Your task to perform on an android device: Show me recent news Image 0: 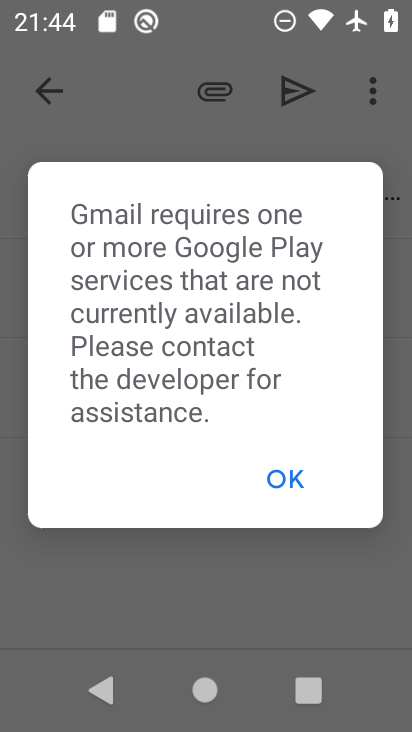
Step 0: press home button
Your task to perform on an android device: Show me recent news Image 1: 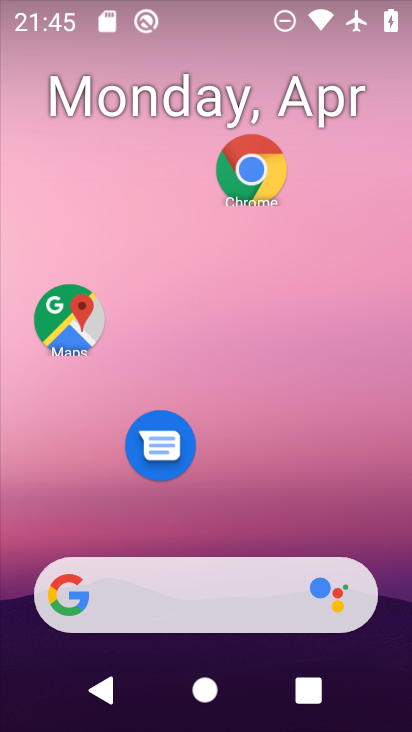
Step 1: drag from (203, 538) to (222, 154)
Your task to perform on an android device: Show me recent news Image 2: 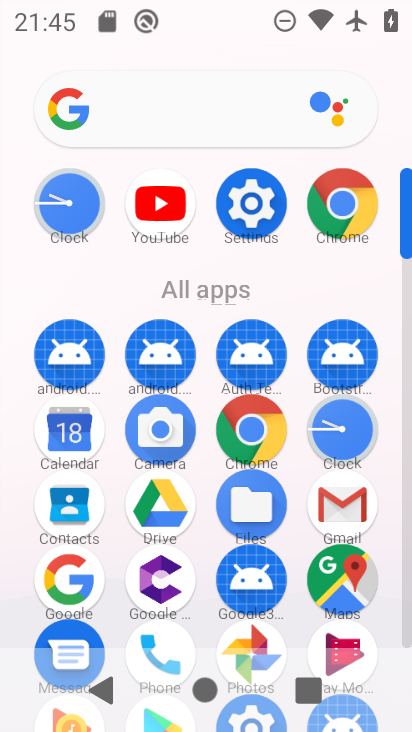
Step 2: click (70, 566)
Your task to perform on an android device: Show me recent news Image 3: 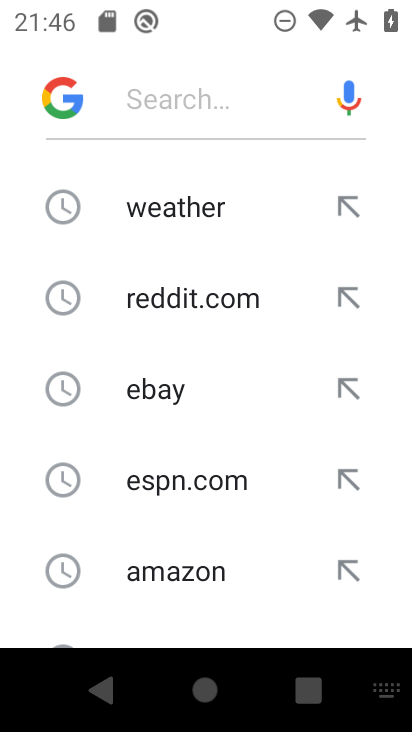
Step 3: click (69, 110)
Your task to perform on an android device: Show me recent news Image 4: 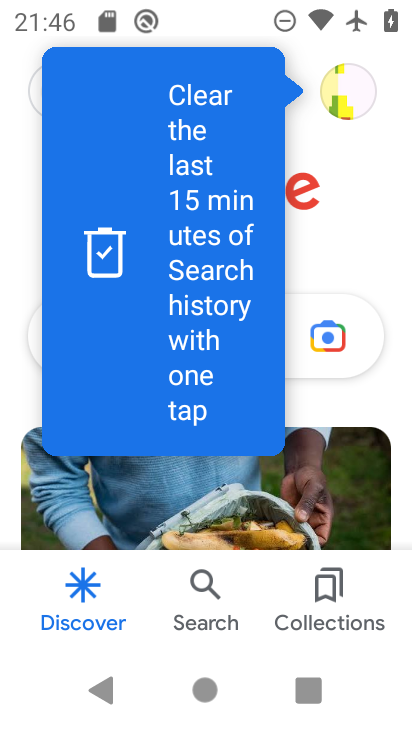
Step 4: drag from (296, 454) to (354, 177)
Your task to perform on an android device: Show me recent news Image 5: 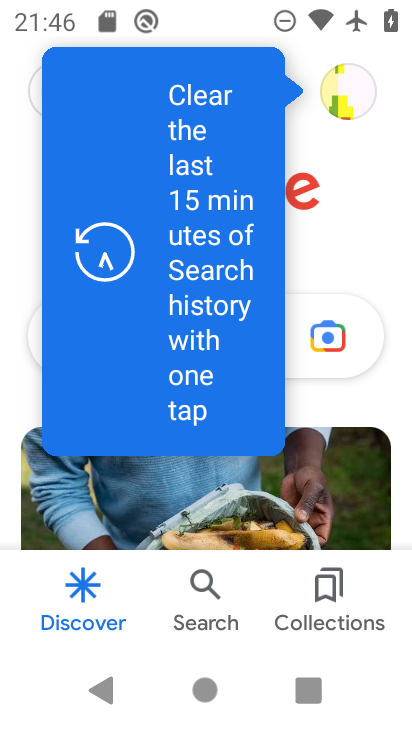
Step 5: click (361, 88)
Your task to perform on an android device: Show me recent news Image 6: 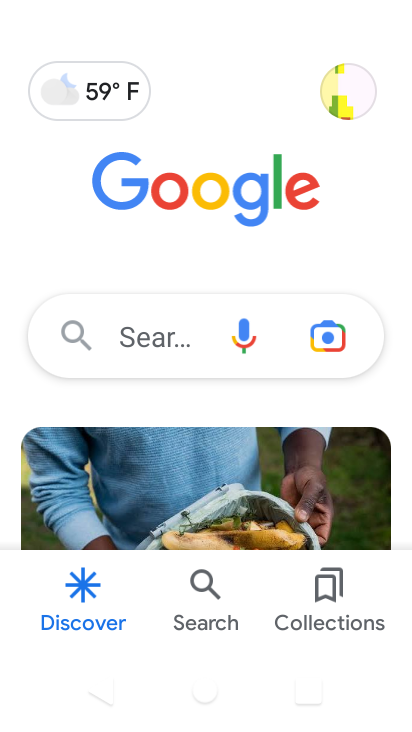
Step 6: click (125, 274)
Your task to perform on an android device: Show me recent news Image 7: 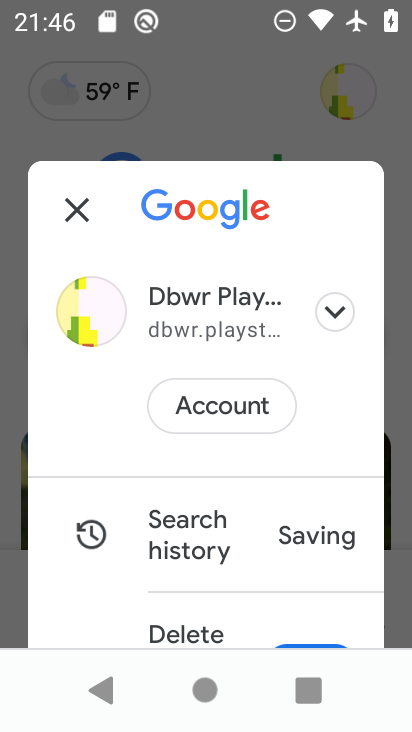
Step 7: click (83, 201)
Your task to perform on an android device: Show me recent news Image 8: 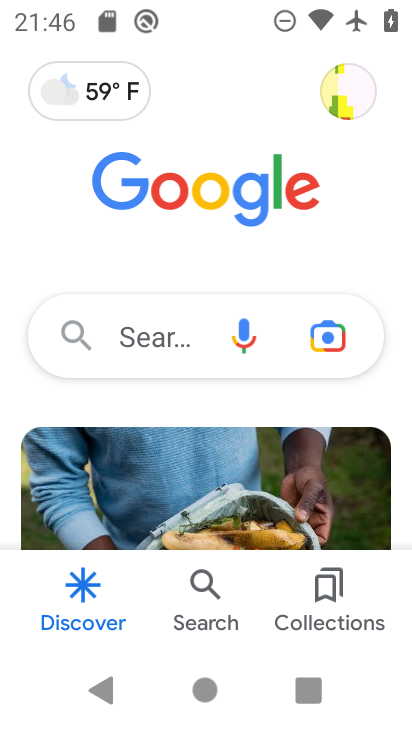
Step 8: task complete